Your task to perform on an android device: Go to ESPN.com Image 0: 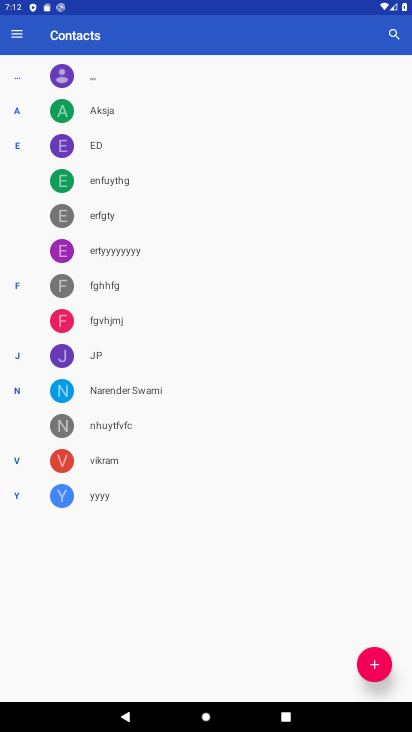
Step 0: press home button
Your task to perform on an android device: Go to ESPN.com Image 1: 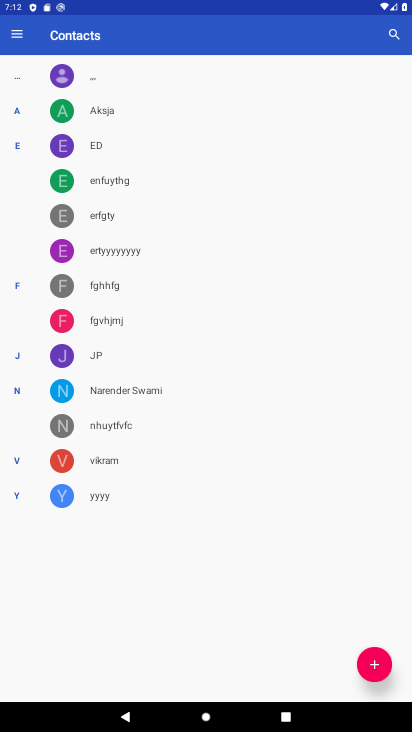
Step 1: drag from (362, 573) to (194, 34)
Your task to perform on an android device: Go to ESPN.com Image 2: 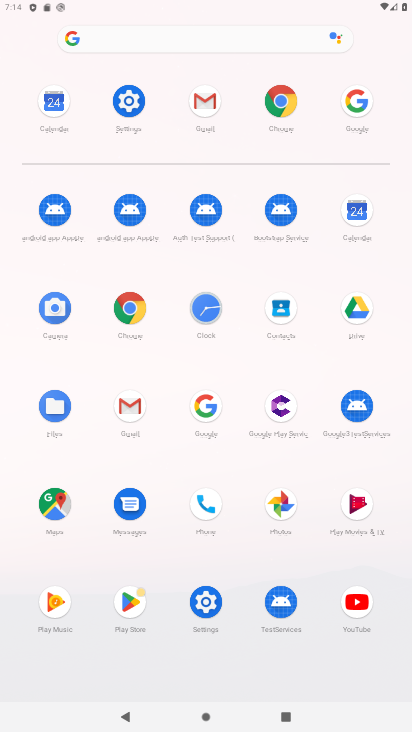
Step 2: click (190, 405)
Your task to perform on an android device: Go to ESPN.com Image 3: 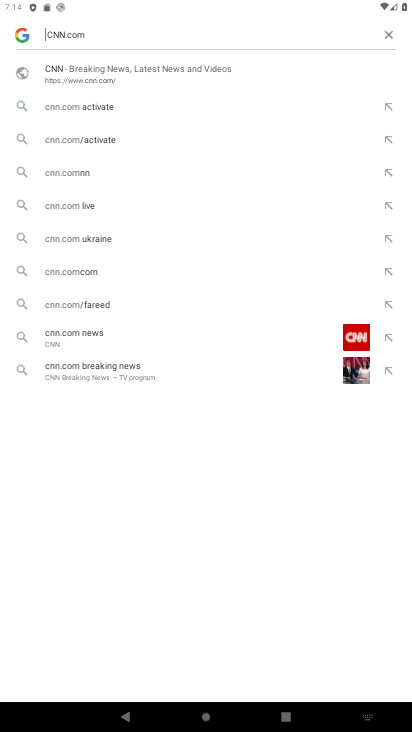
Step 3: click (388, 32)
Your task to perform on an android device: Go to ESPN.com Image 4: 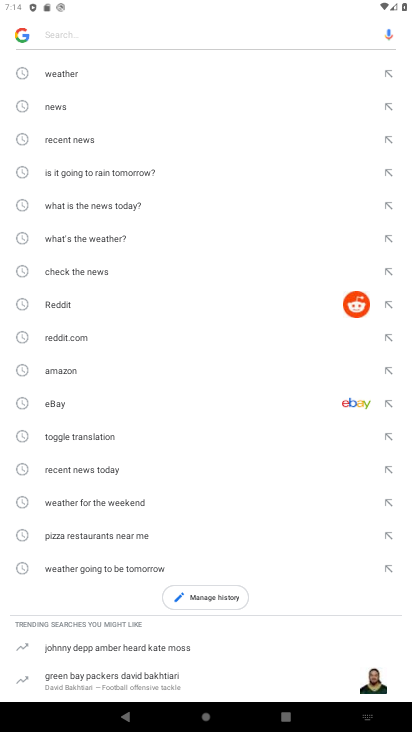
Step 4: type "ESPN.com"
Your task to perform on an android device: Go to ESPN.com Image 5: 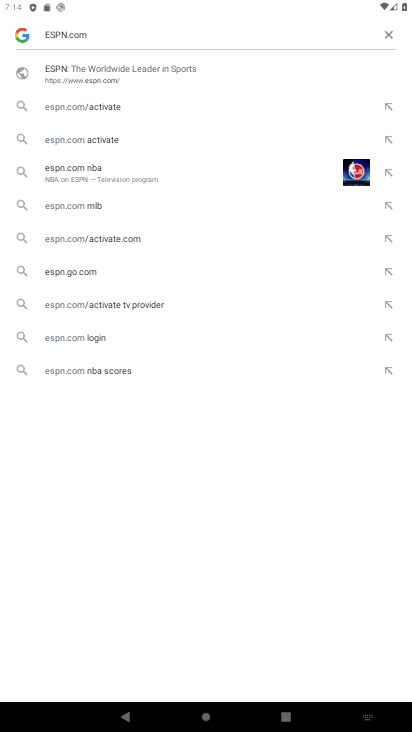
Step 5: click (122, 67)
Your task to perform on an android device: Go to ESPN.com Image 6: 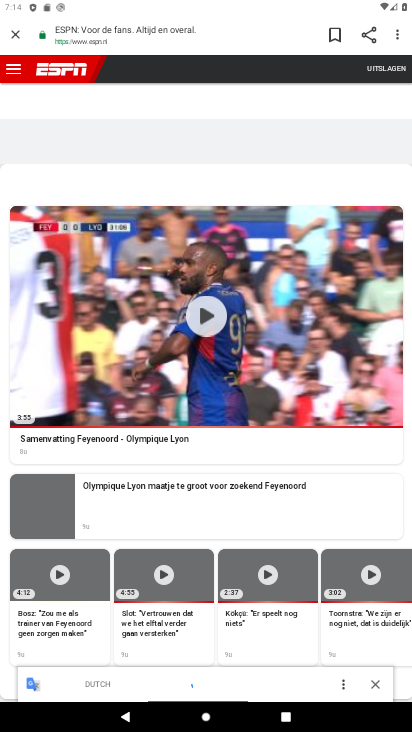
Step 6: task complete